Your task to perform on an android device: empty trash in google photos Image 0: 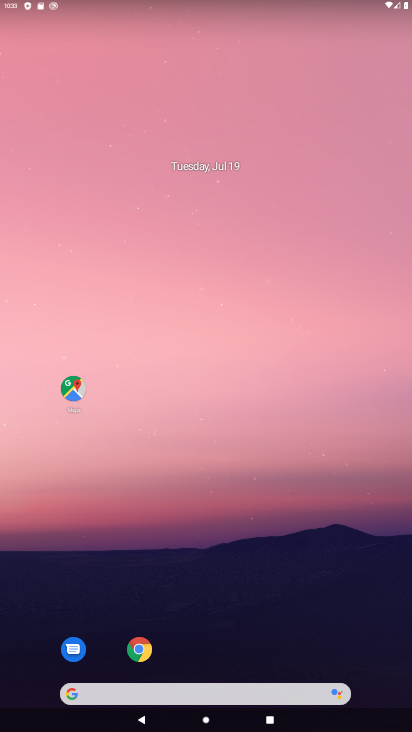
Step 0: drag from (270, 660) to (274, 163)
Your task to perform on an android device: empty trash in google photos Image 1: 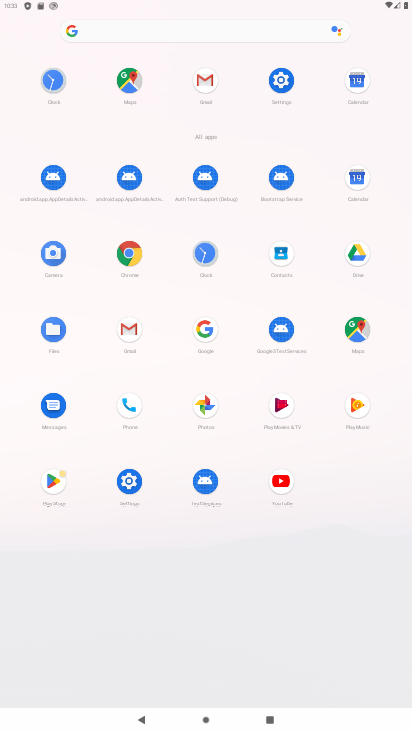
Step 1: click (203, 400)
Your task to perform on an android device: empty trash in google photos Image 2: 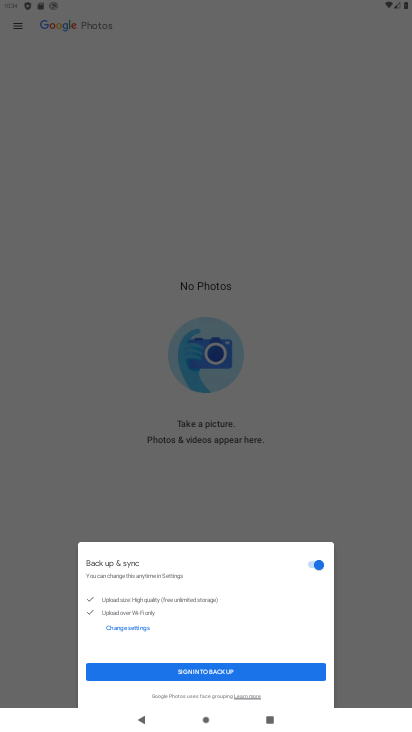
Step 2: click (225, 672)
Your task to perform on an android device: empty trash in google photos Image 3: 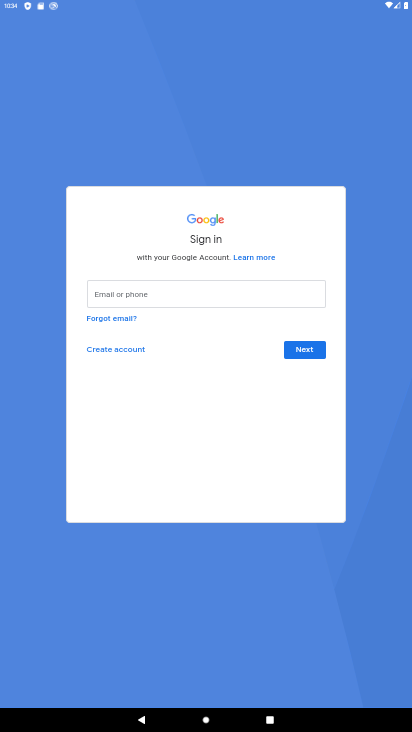
Step 3: task complete